Your task to perform on an android device: check google app version Image 0: 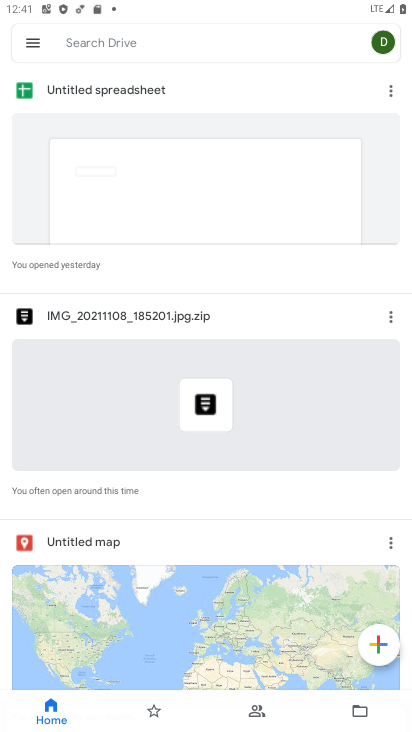
Step 0: task complete